Your task to perform on an android device: manage bookmarks in the chrome app Image 0: 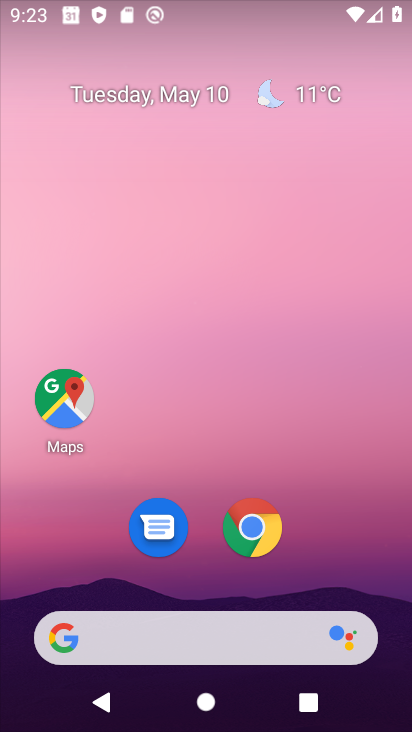
Step 0: click (240, 529)
Your task to perform on an android device: manage bookmarks in the chrome app Image 1: 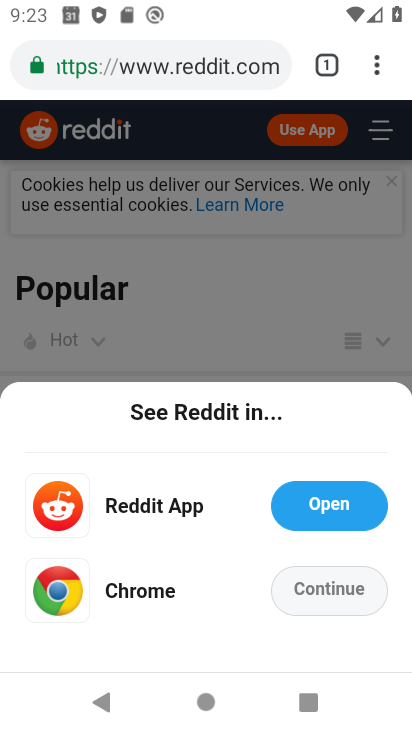
Step 1: click (373, 65)
Your task to perform on an android device: manage bookmarks in the chrome app Image 2: 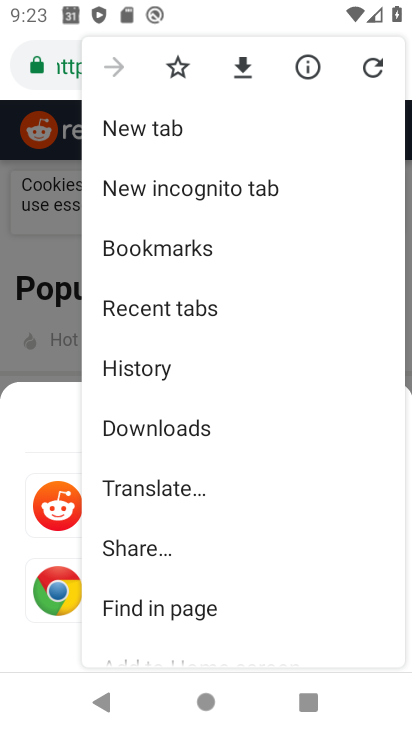
Step 2: click (249, 247)
Your task to perform on an android device: manage bookmarks in the chrome app Image 3: 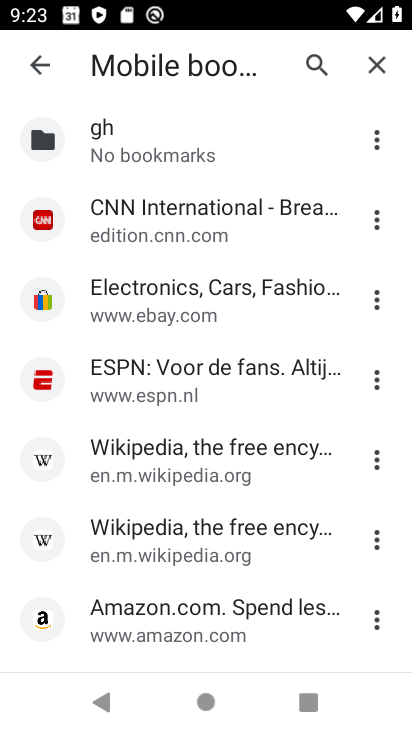
Step 3: click (376, 300)
Your task to perform on an android device: manage bookmarks in the chrome app Image 4: 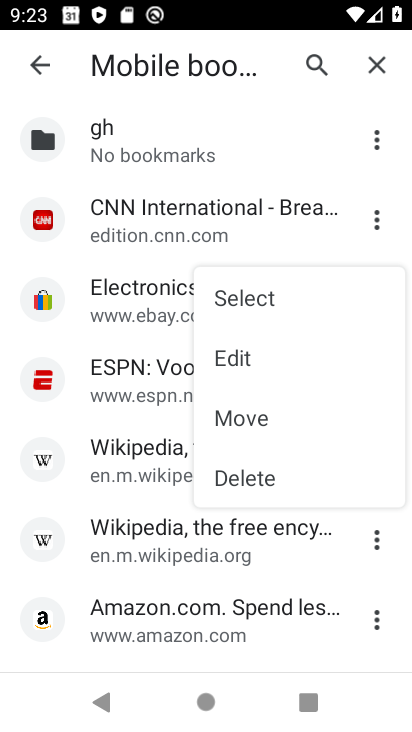
Step 4: click (241, 301)
Your task to perform on an android device: manage bookmarks in the chrome app Image 5: 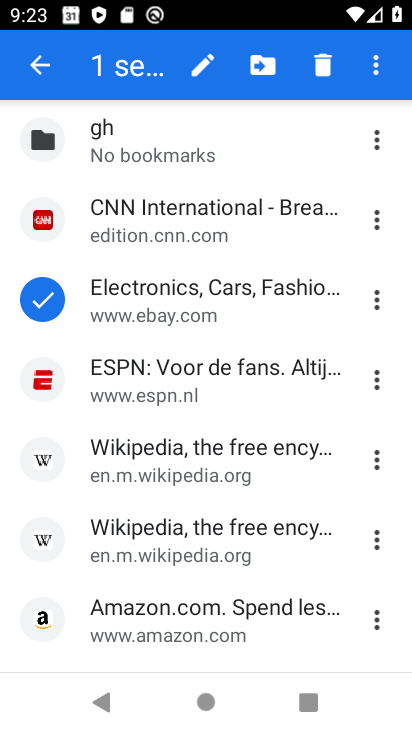
Step 5: click (47, 372)
Your task to perform on an android device: manage bookmarks in the chrome app Image 6: 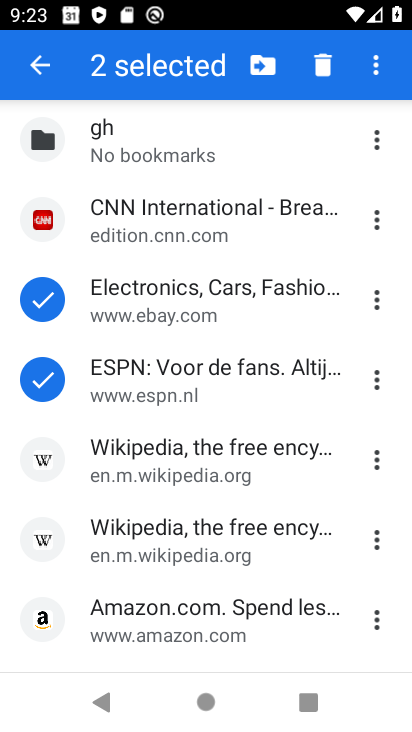
Step 6: click (41, 469)
Your task to perform on an android device: manage bookmarks in the chrome app Image 7: 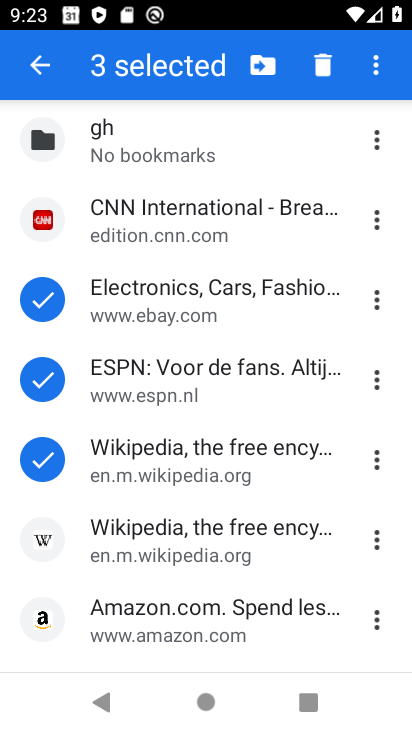
Step 7: click (268, 64)
Your task to perform on an android device: manage bookmarks in the chrome app Image 8: 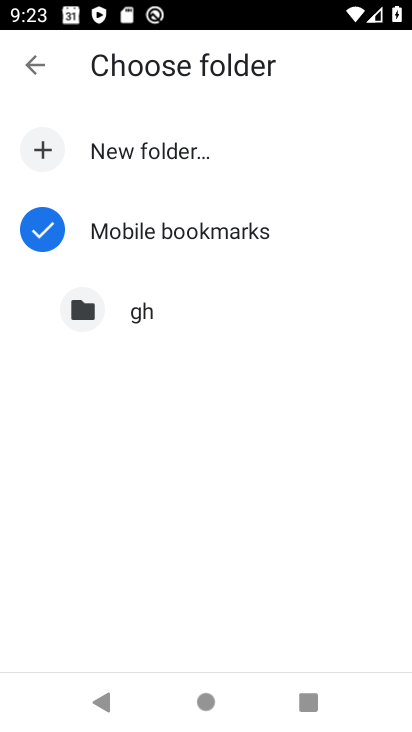
Step 8: click (142, 308)
Your task to perform on an android device: manage bookmarks in the chrome app Image 9: 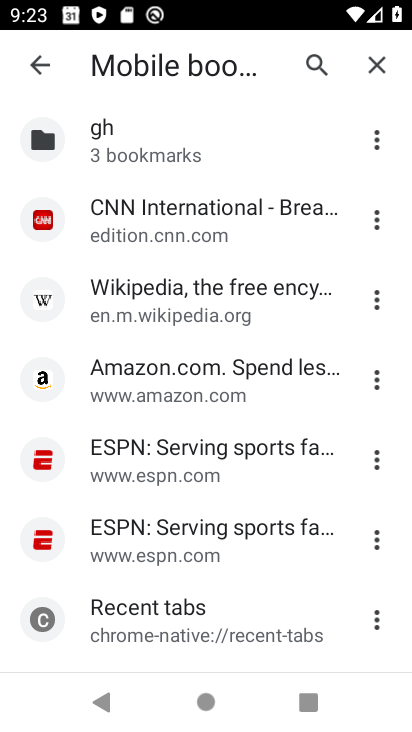
Step 9: click (378, 455)
Your task to perform on an android device: manage bookmarks in the chrome app Image 10: 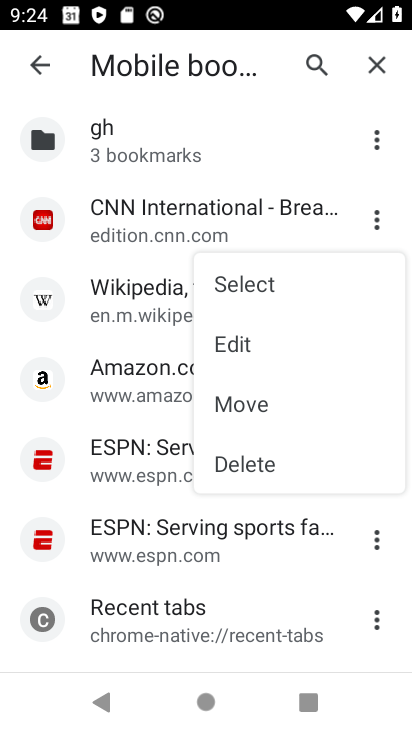
Step 10: click (245, 277)
Your task to perform on an android device: manage bookmarks in the chrome app Image 11: 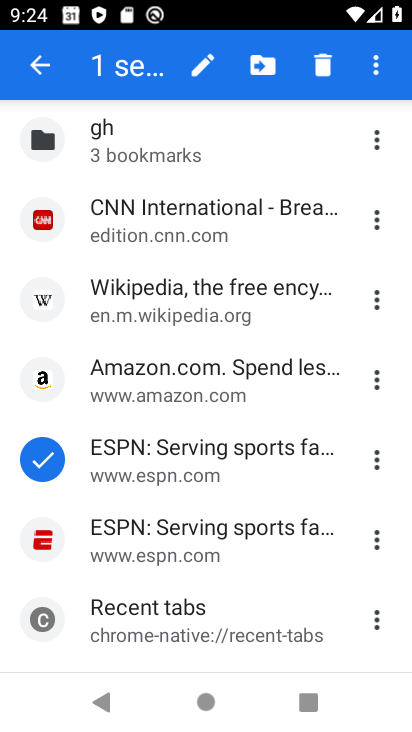
Step 11: click (49, 306)
Your task to perform on an android device: manage bookmarks in the chrome app Image 12: 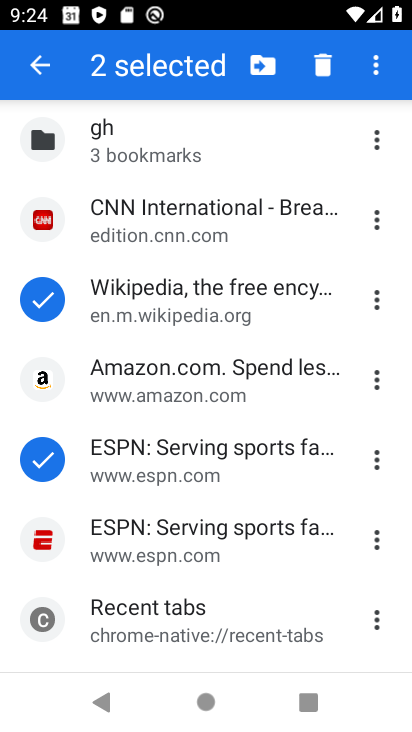
Step 12: click (49, 614)
Your task to perform on an android device: manage bookmarks in the chrome app Image 13: 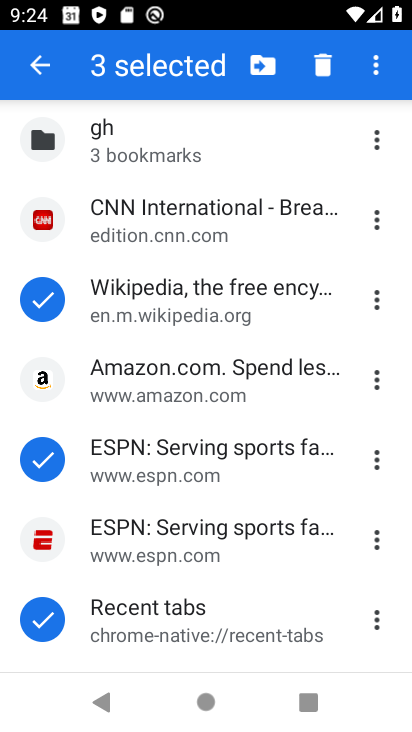
Step 13: click (47, 544)
Your task to perform on an android device: manage bookmarks in the chrome app Image 14: 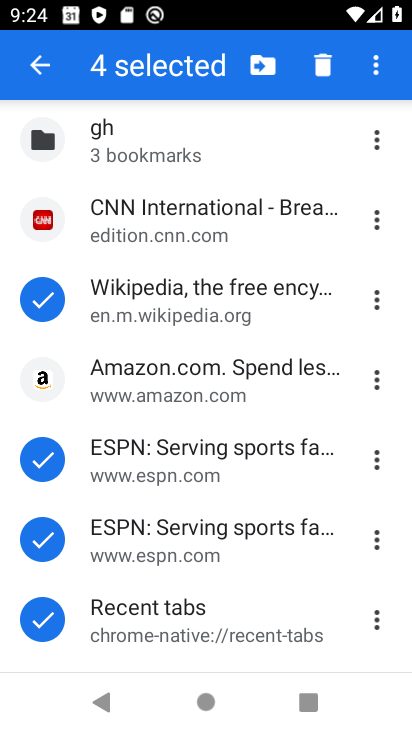
Step 14: click (328, 73)
Your task to perform on an android device: manage bookmarks in the chrome app Image 15: 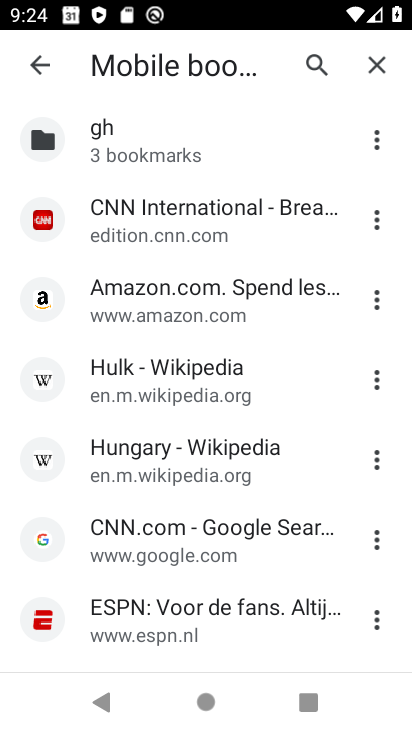
Step 15: task complete